Your task to perform on an android device: toggle translation in the chrome app Image 0: 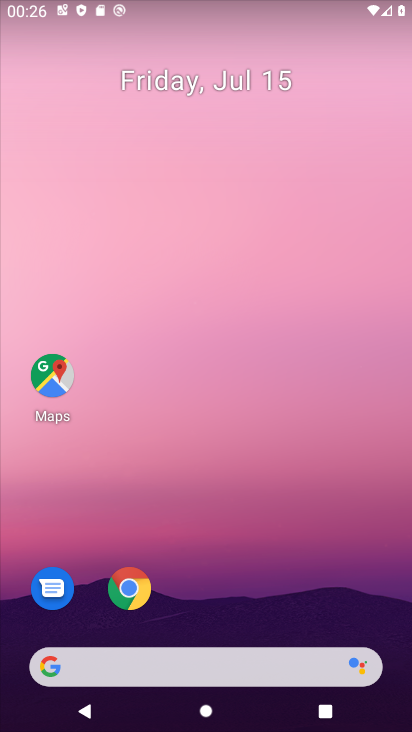
Step 0: click (133, 575)
Your task to perform on an android device: toggle translation in the chrome app Image 1: 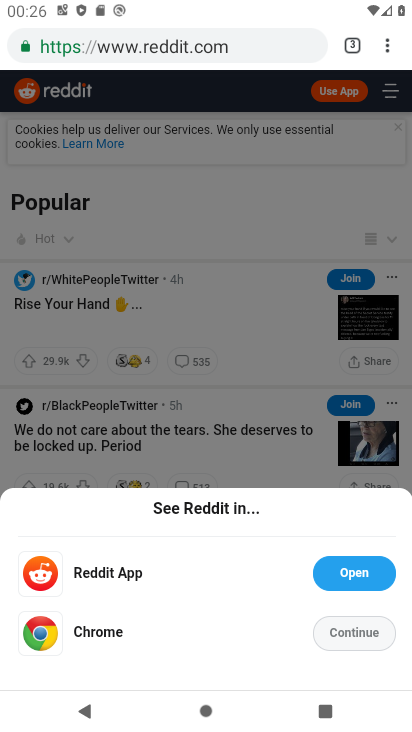
Step 1: drag from (389, 38) to (242, 550)
Your task to perform on an android device: toggle translation in the chrome app Image 2: 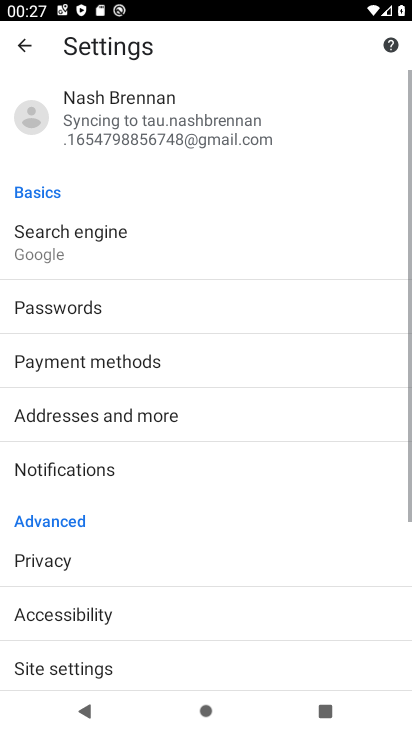
Step 2: drag from (149, 607) to (215, 93)
Your task to perform on an android device: toggle translation in the chrome app Image 3: 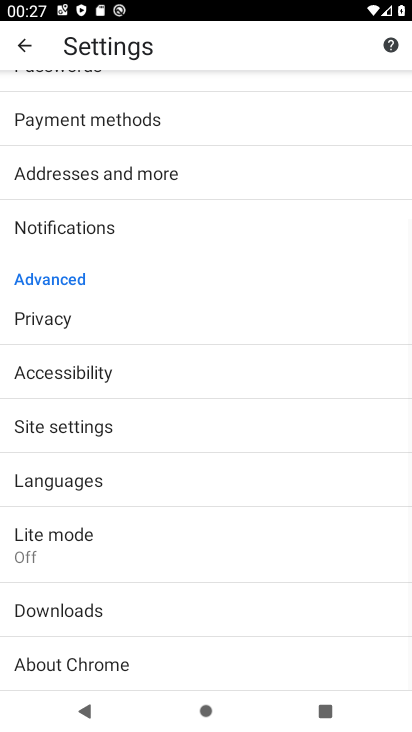
Step 3: click (81, 484)
Your task to perform on an android device: toggle translation in the chrome app Image 4: 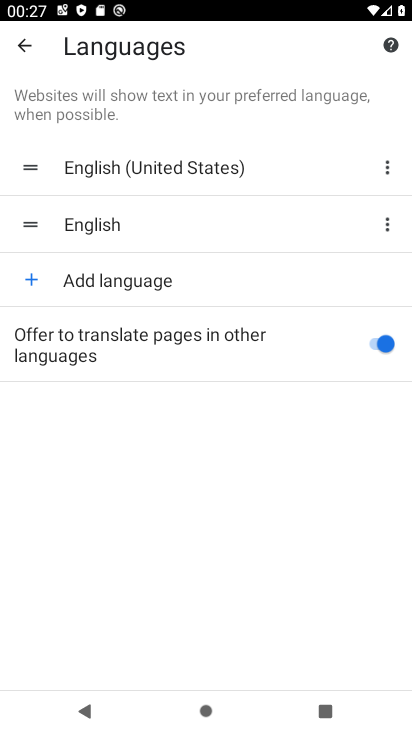
Step 4: click (380, 346)
Your task to perform on an android device: toggle translation in the chrome app Image 5: 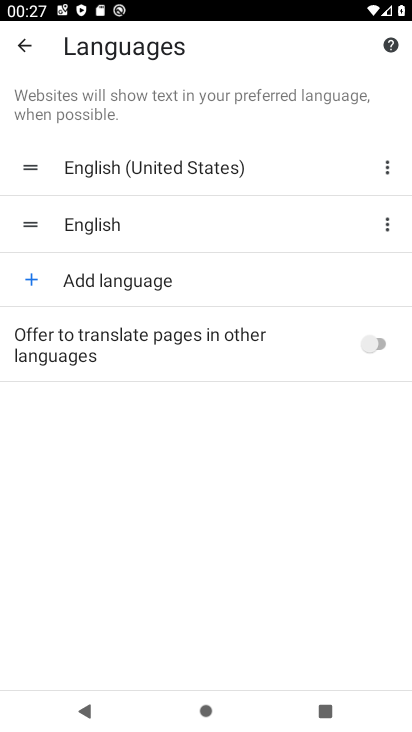
Step 5: task complete